Your task to perform on an android device: Open Google Maps Image 0: 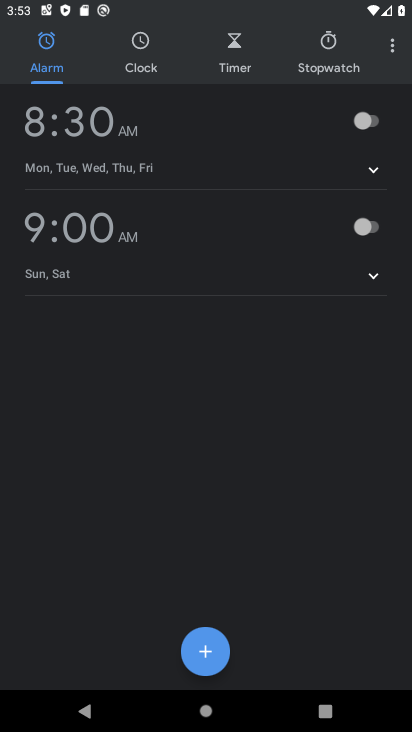
Step 0: press home button
Your task to perform on an android device: Open Google Maps Image 1: 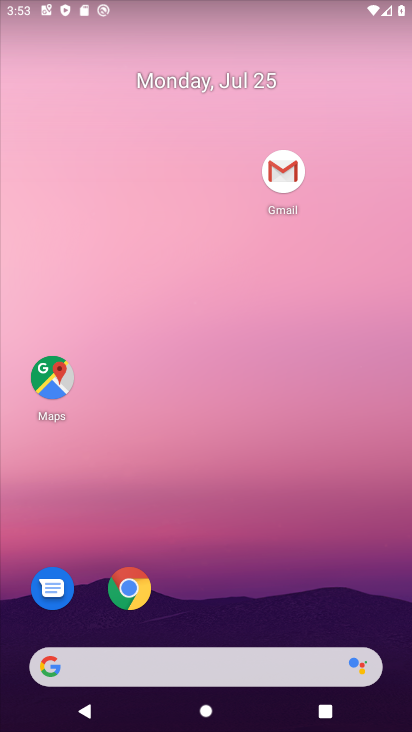
Step 1: click (47, 377)
Your task to perform on an android device: Open Google Maps Image 2: 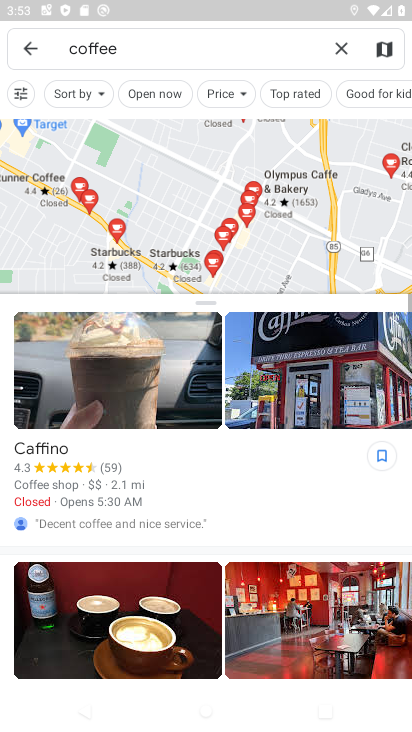
Step 2: task complete